Your task to perform on an android device: clear history in the chrome app Image 0: 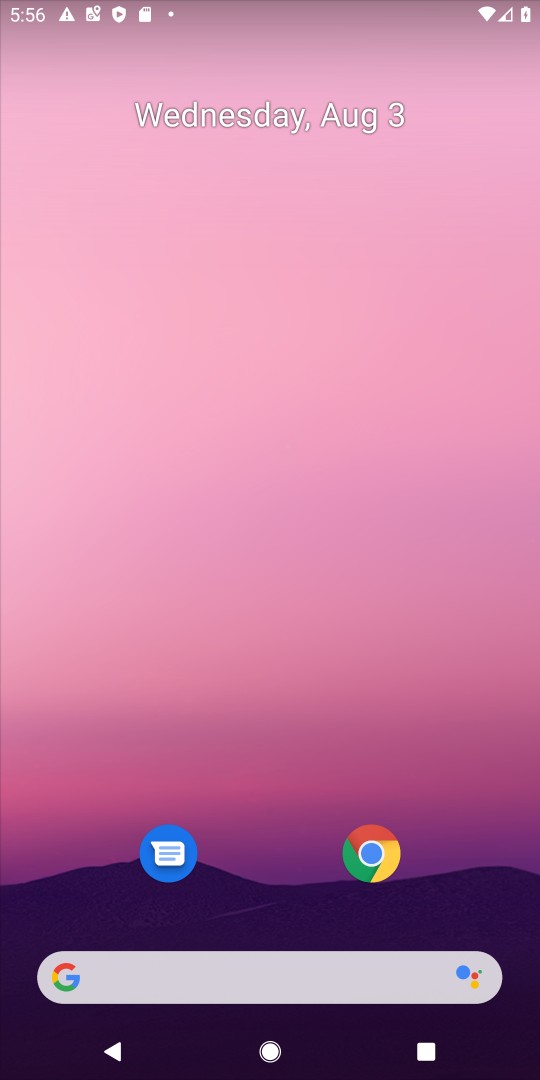
Step 0: drag from (490, 807) to (411, 327)
Your task to perform on an android device: clear history in the chrome app Image 1: 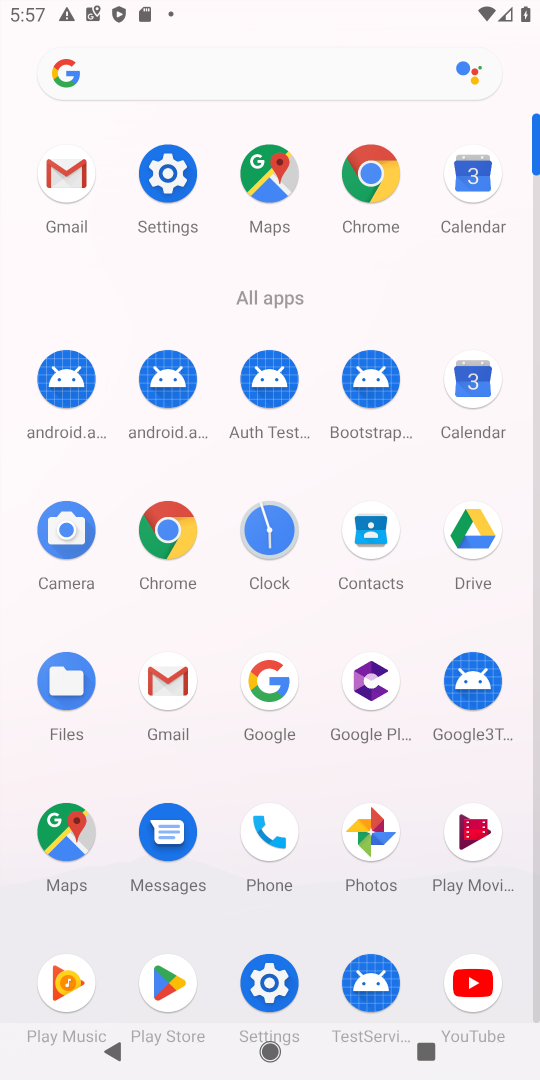
Step 1: click (170, 541)
Your task to perform on an android device: clear history in the chrome app Image 2: 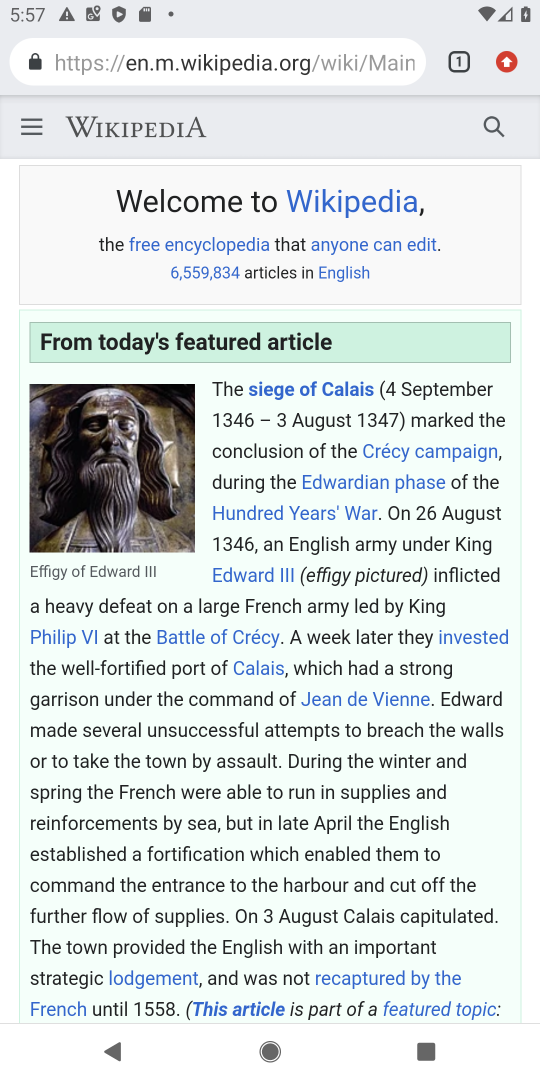
Step 2: click (501, 71)
Your task to perform on an android device: clear history in the chrome app Image 3: 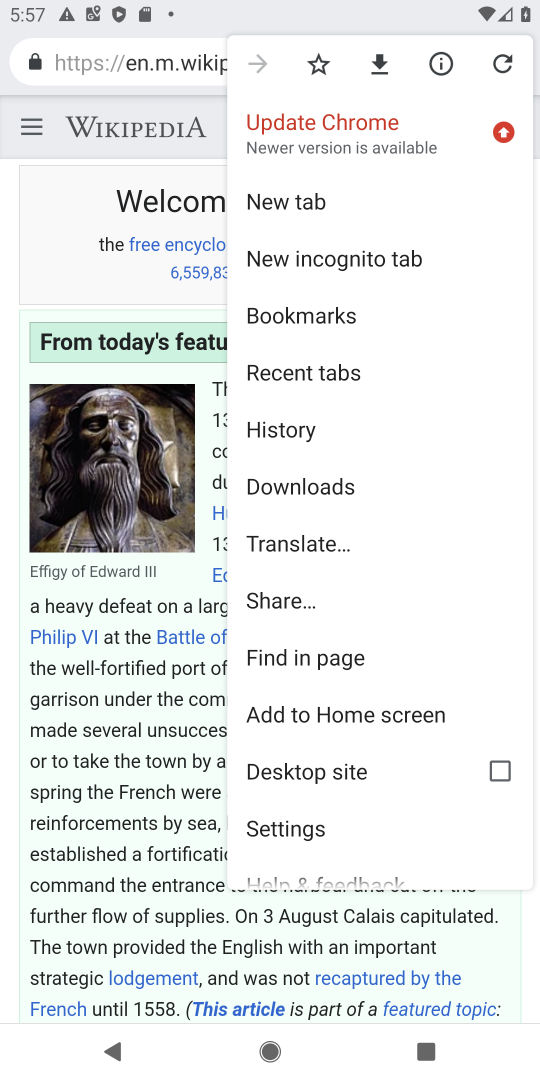
Step 3: click (286, 426)
Your task to perform on an android device: clear history in the chrome app Image 4: 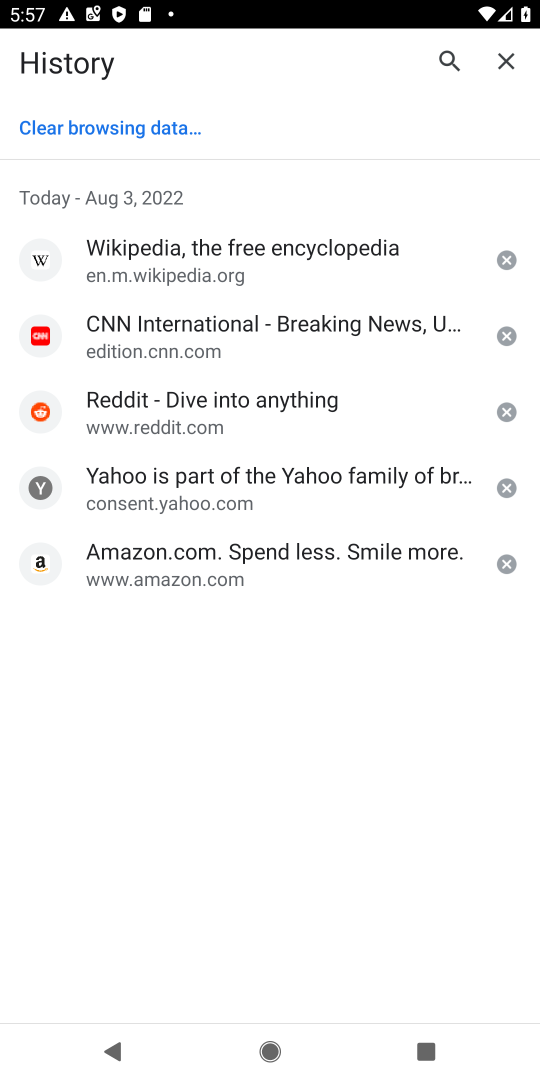
Step 4: click (123, 134)
Your task to perform on an android device: clear history in the chrome app Image 5: 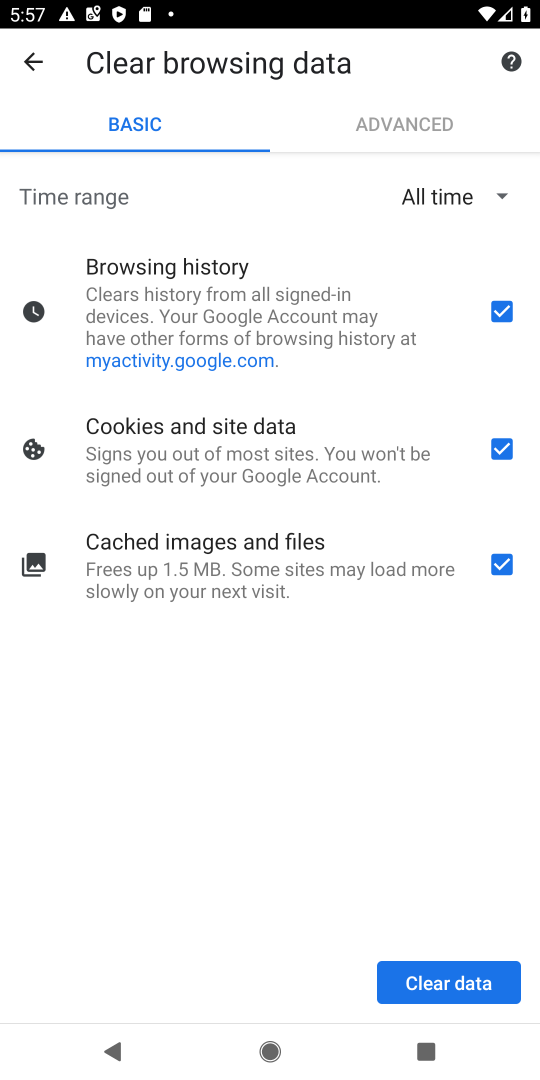
Step 5: click (462, 978)
Your task to perform on an android device: clear history in the chrome app Image 6: 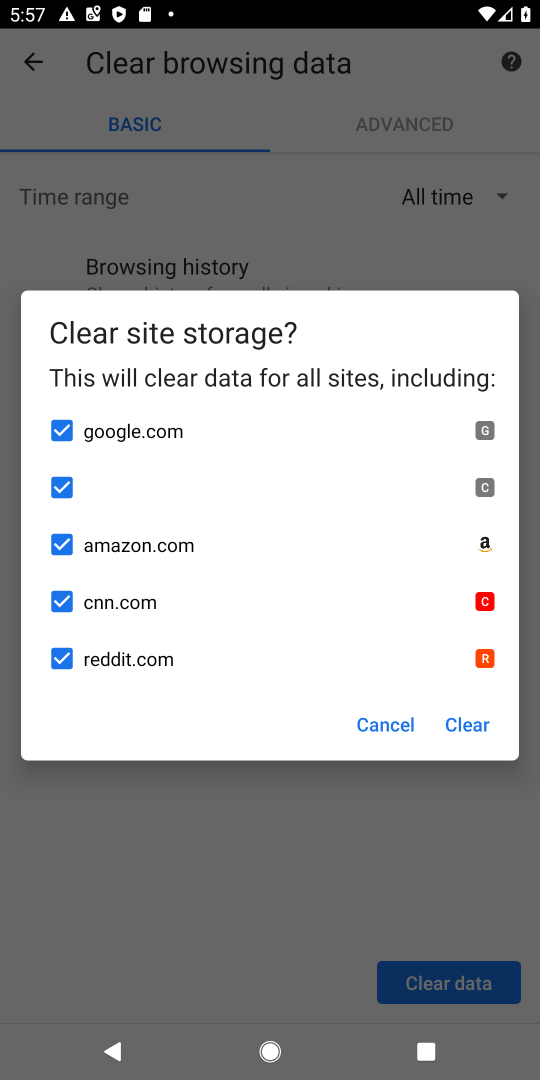
Step 6: click (474, 727)
Your task to perform on an android device: clear history in the chrome app Image 7: 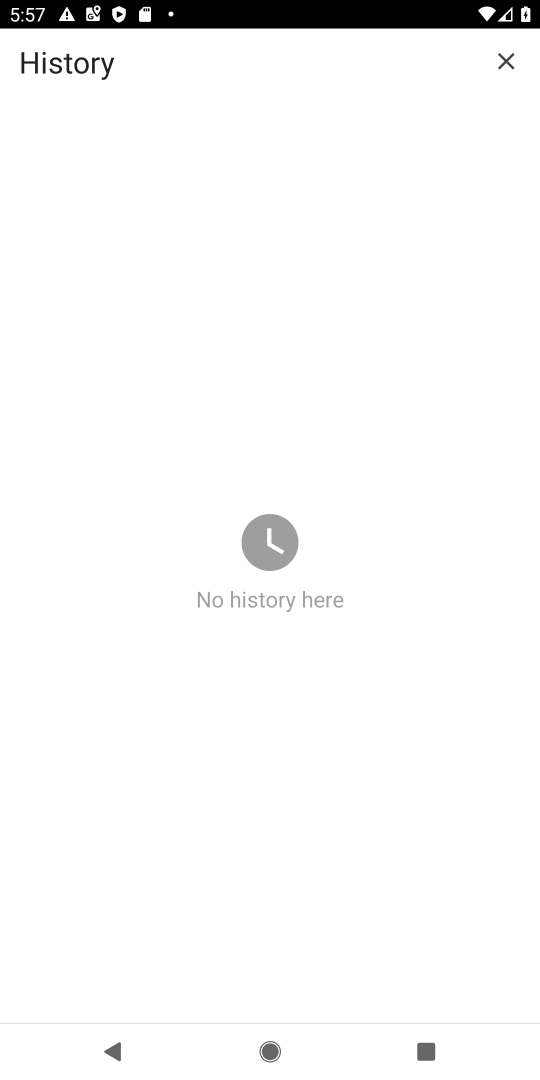
Step 7: task complete